Your task to perform on an android device: turn off picture-in-picture Image 0: 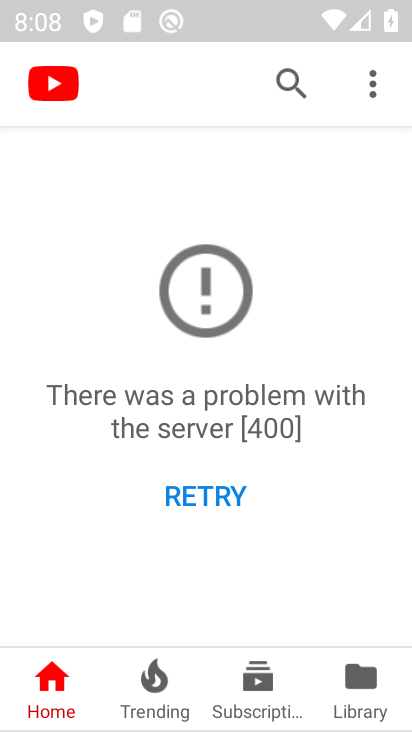
Step 0: press home button
Your task to perform on an android device: turn off picture-in-picture Image 1: 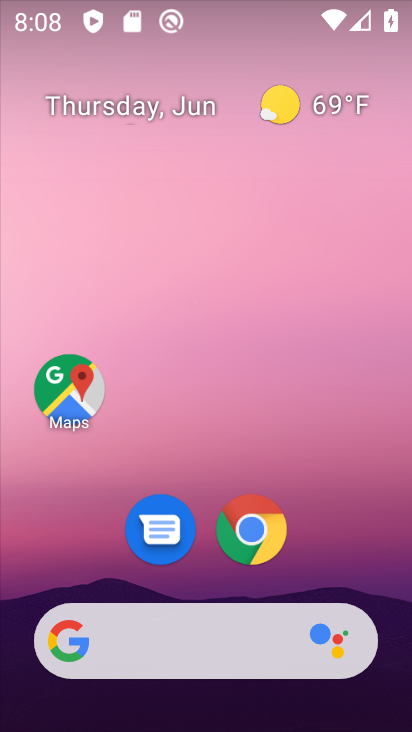
Step 1: drag from (225, 608) to (186, 0)
Your task to perform on an android device: turn off picture-in-picture Image 2: 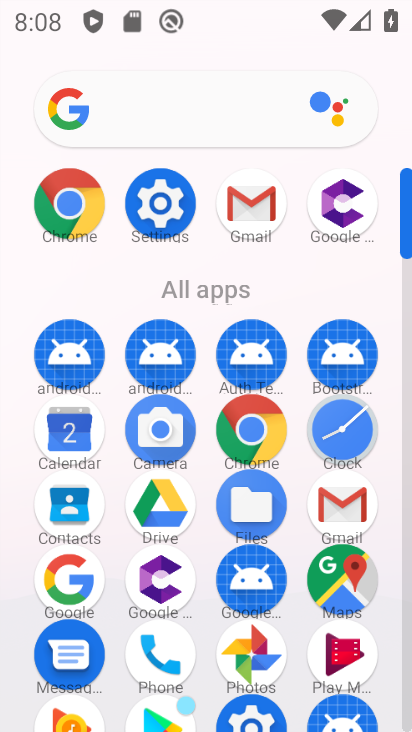
Step 2: click (176, 185)
Your task to perform on an android device: turn off picture-in-picture Image 3: 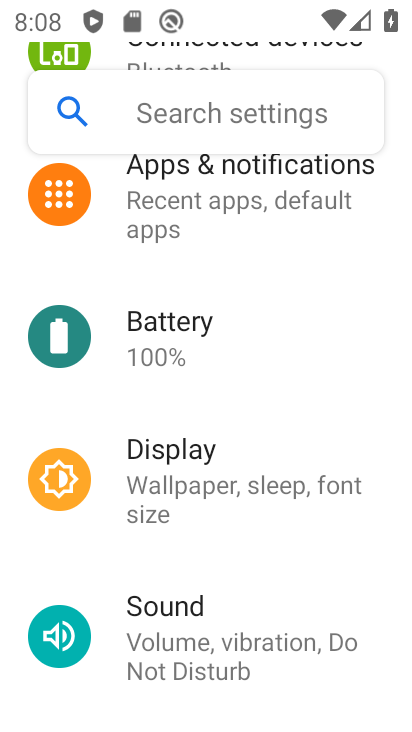
Step 3: drag from (208, 298) to (216, 604)
Your task to perform on an android device: turn off picture-in-picture Image 4: 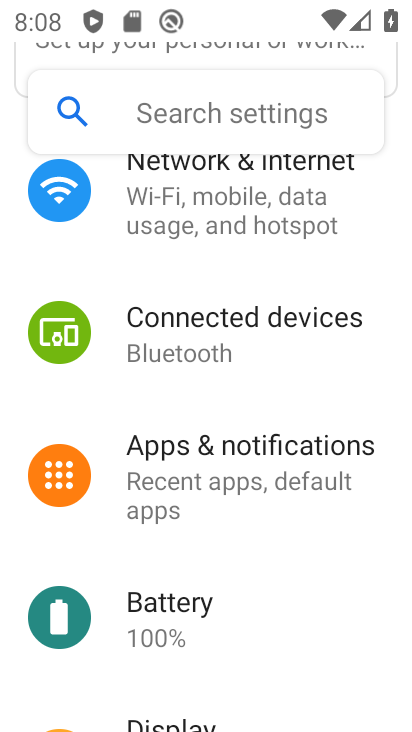
Step 4: click (215, 459)
Your task to perform on an android device: turn off picture-in-picture Image 5: 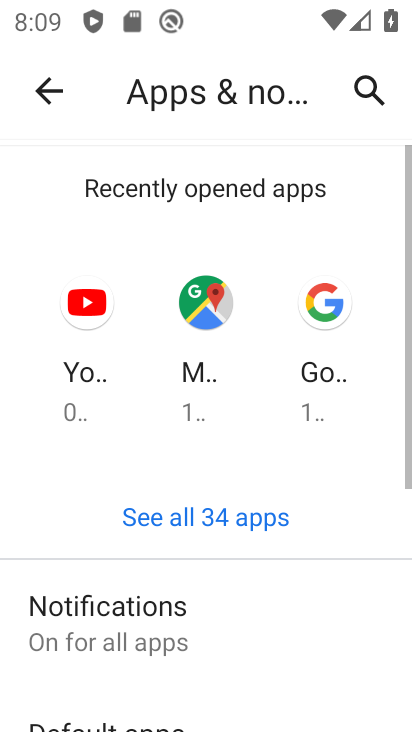
Step 5: drag from (239, 522) to (197, 54)
Your task to perform on an android device: turn off picture-in-picture Image 6: 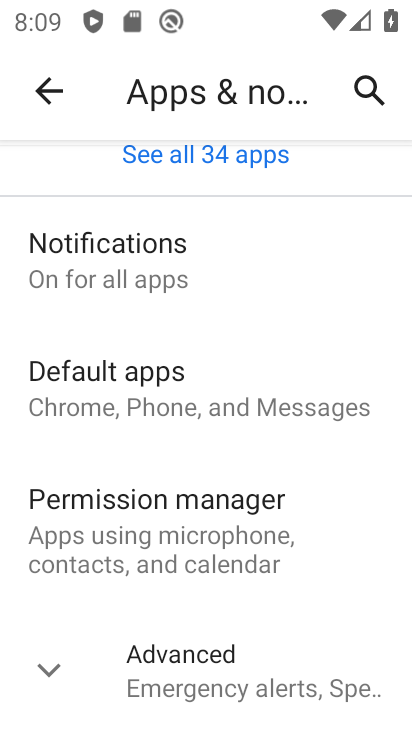
Step 6: click (282, 665)
Your task to perform on an android device: turn off picture-in-picture Image 7: 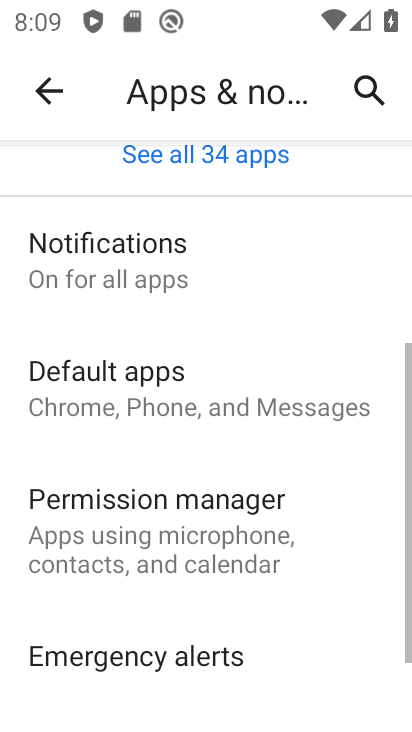
Step 7: drag from (282, 665) to (235, 86)
Your task to perform on an android device: turn off picture-in-picture Image 8: 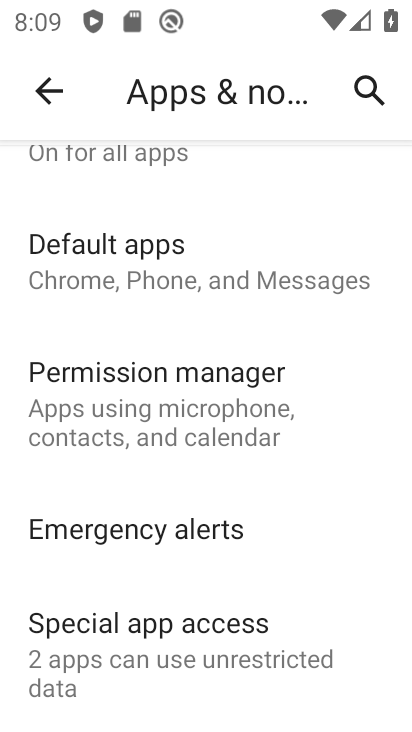
Step 8: click (221, 612)
Your task to perform on an android device: turn off picture-in-picture Image 9: 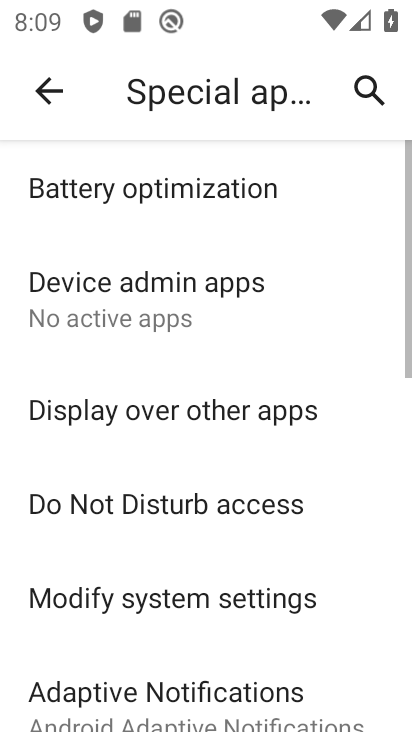
Step 9: drag from (221, 612) to (216, 476)
Your task to perform on an android device: turn off picture-in-picture Image 10: 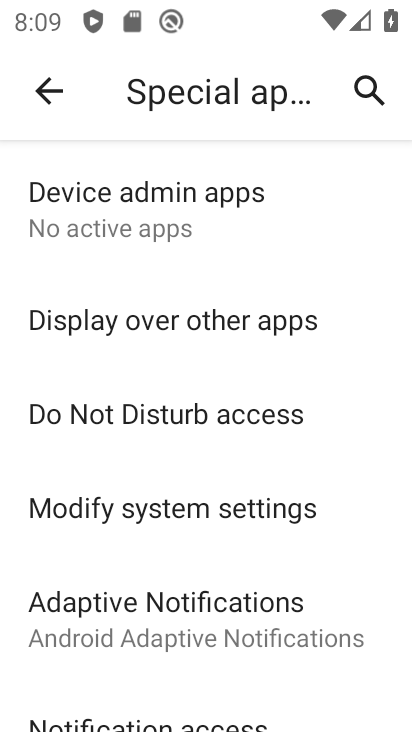
Step 10: drag from (137, 493) to (88, 83)
Your task to perform on an android device: turn off picture-in-picture Image 11: 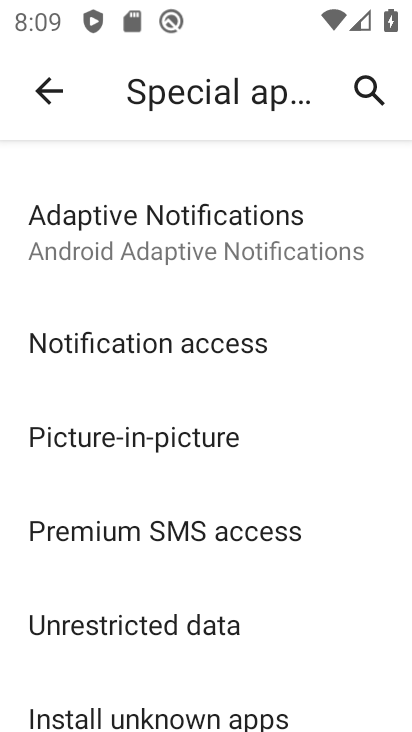
Step 11: click (151, 443)
Your task to perform on an android device: turn off picture-in-picture Image 12: 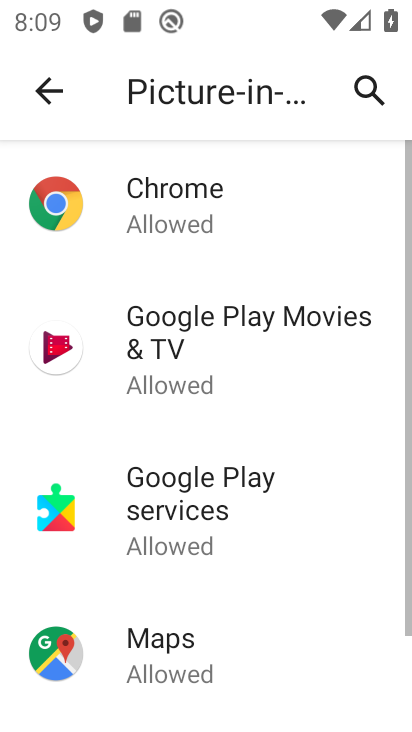
Step 12: task complete